Your task to perform on an android device: Open ESPN.com Image 0: 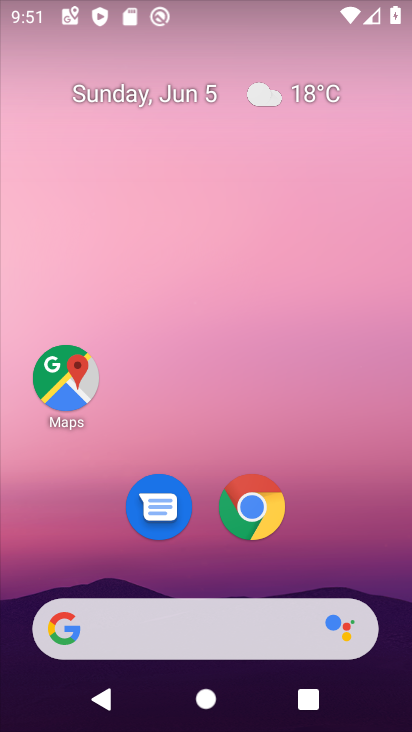
Step 0: click (265, 513)
Your task to perform on an android device: Open ESPN.com Image 1: 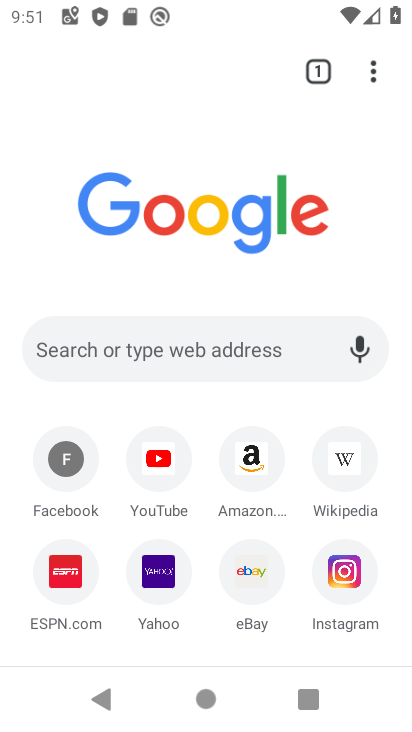
Step 1: click (57, 586)
Your task to perform on an android device: Open ESPN.com Image 2: 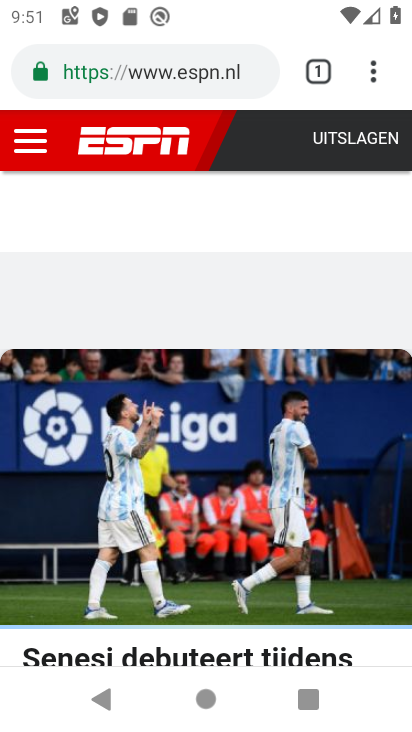
Step 2: task complete